Your task to perform on an android device: What is the recent news? Image 0: 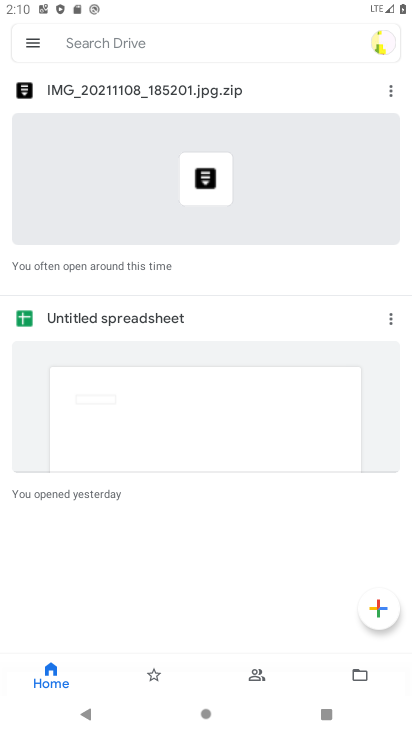
Step 0: press home button
Your task to perform on an android device: What is the recent news? Image 1: 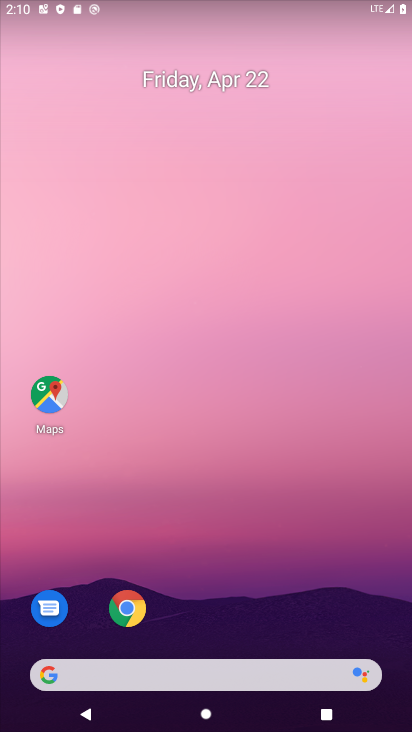
Step 1: drag from (181, 694) to (231, 97)
Your task to perform on an android device: What is the recent news? Image 2: 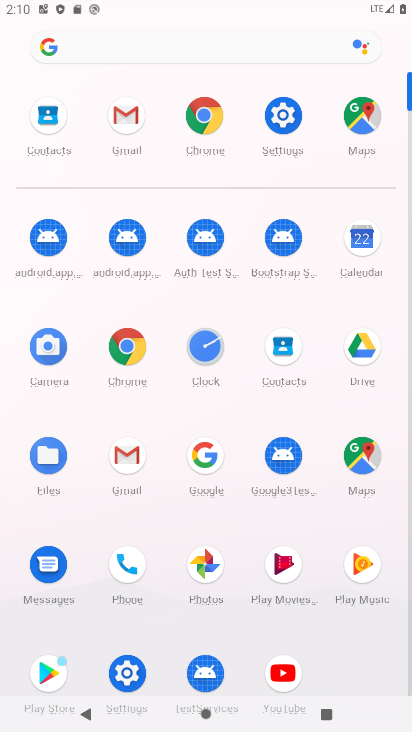
Step 2: click (173, 39)
Your task to perform on an android device: What is the recent news? Image 3: 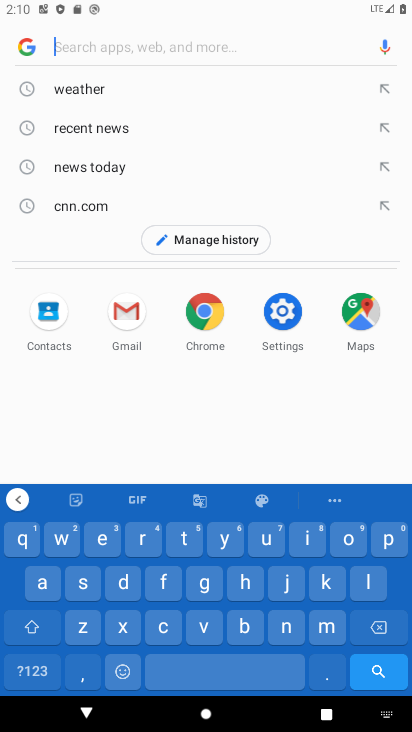
Step 3: click (107, 134)
Your task to perform on an android device: What is the recent news? Image 4: 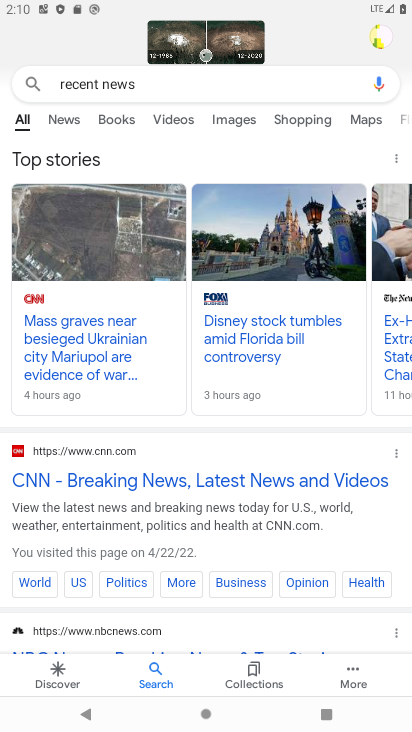
Step 4: task complete